Your task to perform on an android device: open wifi settings Image 0: 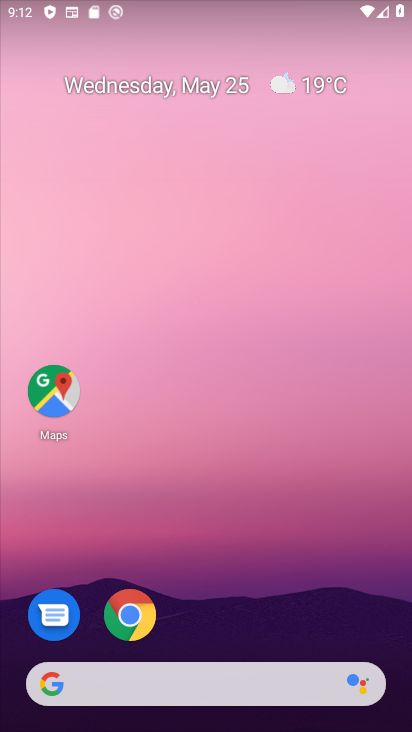
Step 0: drag from (261, 698) to (272, 99)
Your task to perform on an android device: open wifi settings Image 1: 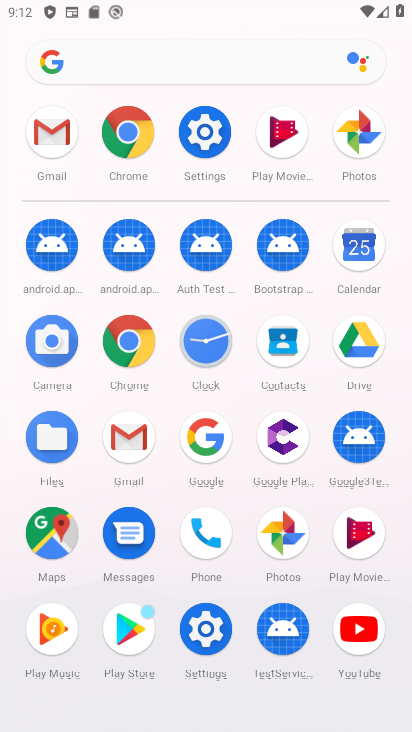
Step 1: click (196, 130)
Your task to perform on an android device: open wifi settings Image 2: 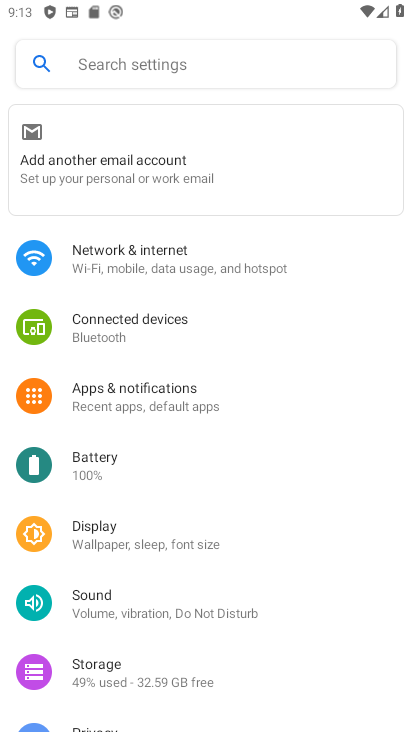
Step 2: click (141, 265)
Your task to perform on an android device: open wifi settings Image 3: 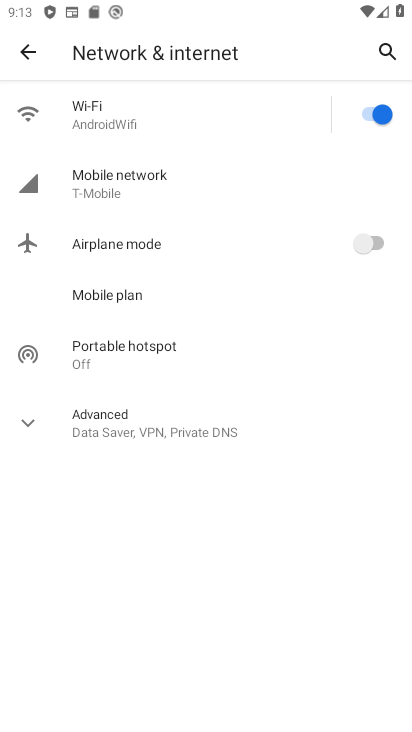
Step 3: click (144, 123)
Your task to perform on an android device: open wifi settings Image 4: 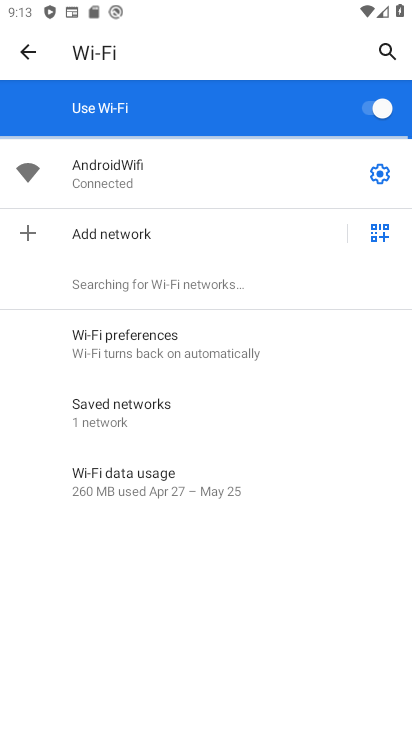
Step 4: task complete